Your task to perform on an android device: see sites visited before in the chrome app Image 0: 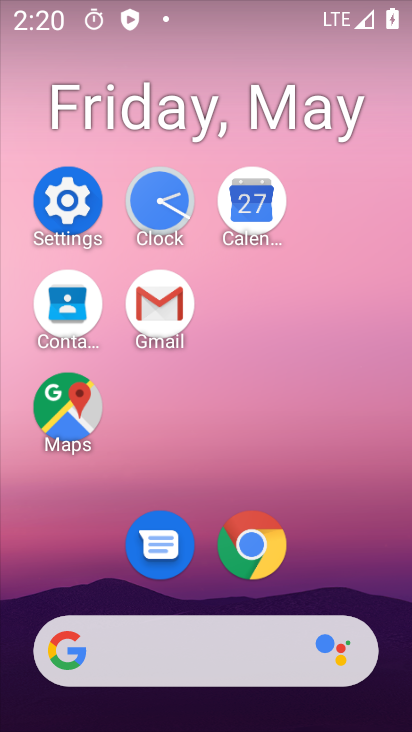
Step 0: click (263, 556)
Your task to perform on an android device: see sites visited before in the chrome app Image 1: 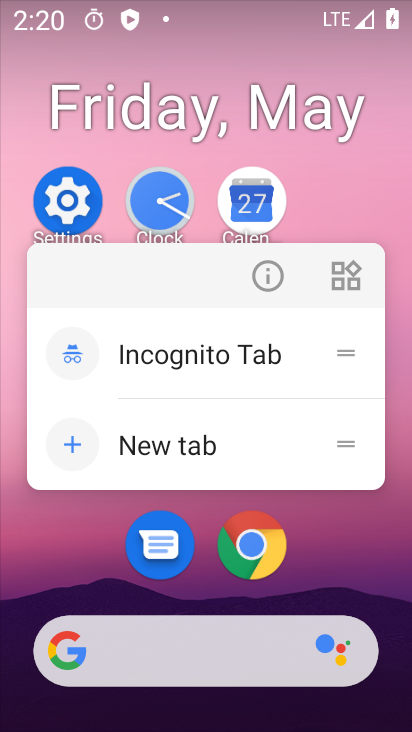
Step 1: click (263, 555)
Your task to perform on an android device: see sites visited before in the chrome app Image 2: 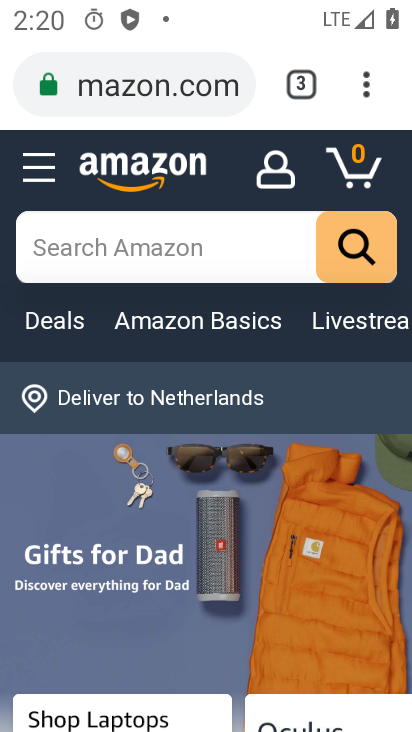
Step 2: click (370, 84)
Your task to perform on an android device: see sites visited before in the chrome app Image 3: 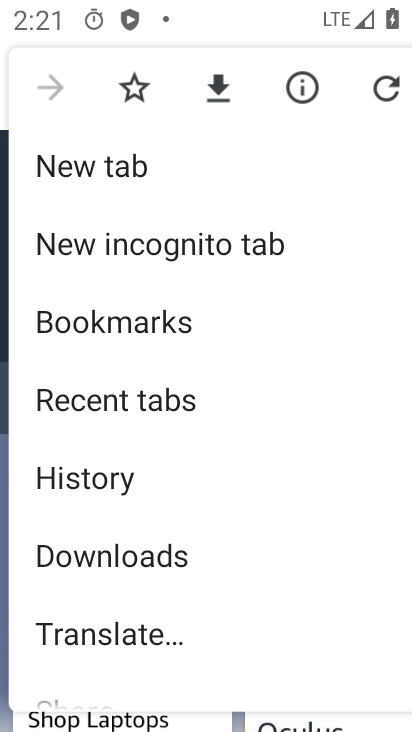
Step 3: drag from (269, 513) to (262, 317)
Your task to perform on an android device: see sites visited before in the chrome app Image 4: 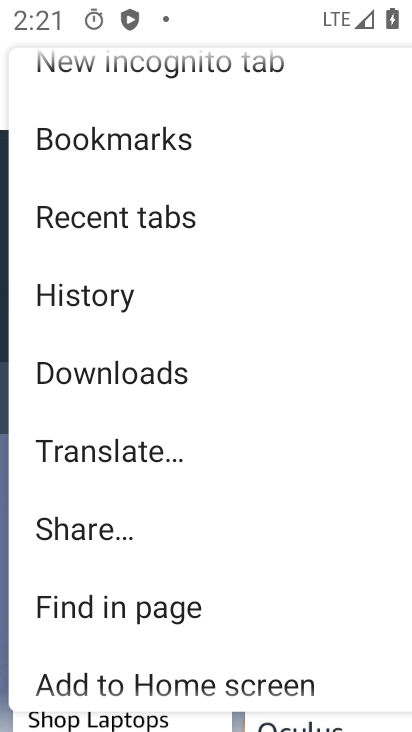
Step 4: drag from (252, 291) to (291, 651)
Your task to perform on an android device: see sites visited before in the chrome app Image 5: 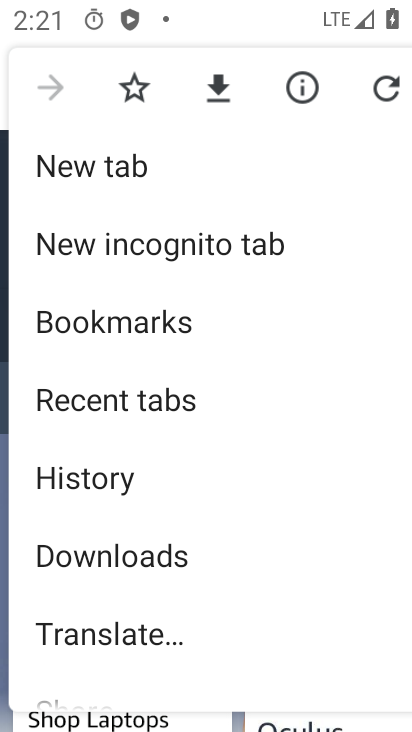
Step 5: click (157, 386)
Your task to perform on an android device: see sites visited before in the chrome app Image 6: 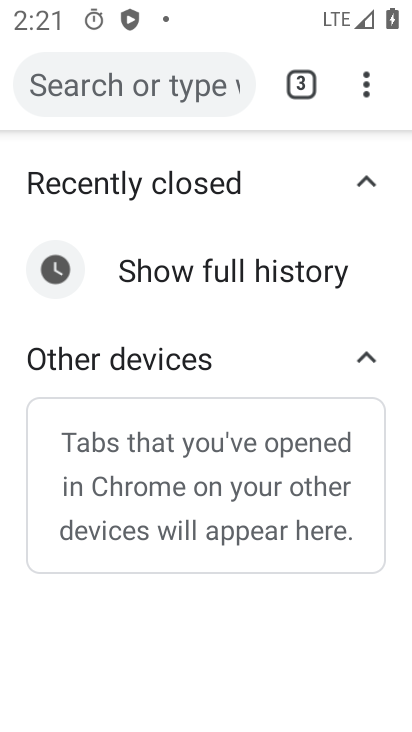
Step 6: task complete